Your task to perform on an android device: Do I have any events this weekend? Image 0: 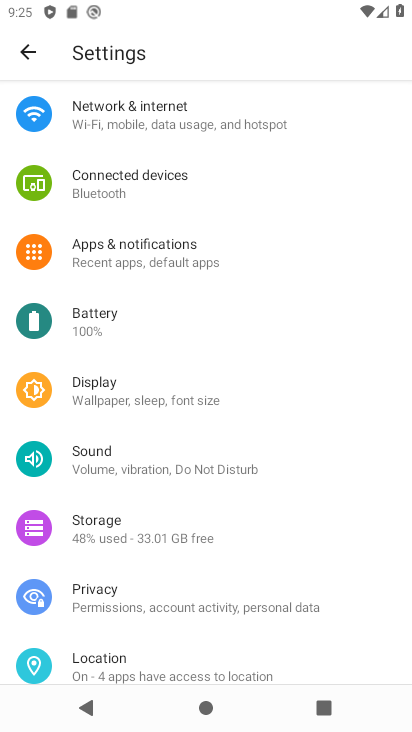
Step 0: press home button
Your task to perform on an android device: Do I have any events this weekend? Image 1: 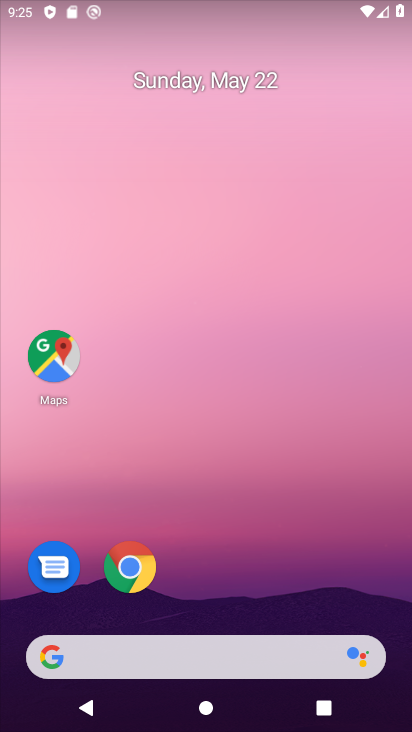
Step 1: drag from (269, 573) to (266, 145)
Your task to perform on an android device: Do I have any events this weekend? Image 2: 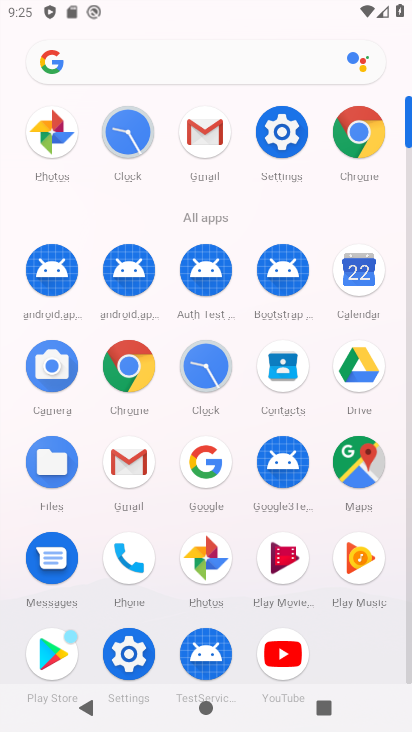
Step 2: click (352, 262)
Your task to perform on an android device: Do I have any events this weekend? Image 3: 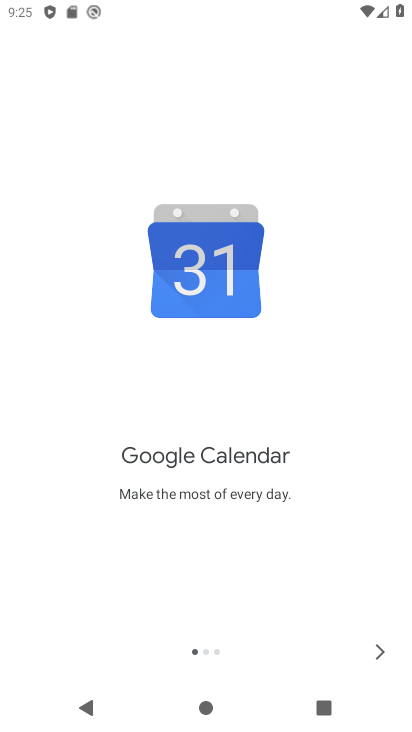
Step 3: click (359, 653)
Your task to perform on an android device: Do I have any events this weekend? Image 4: 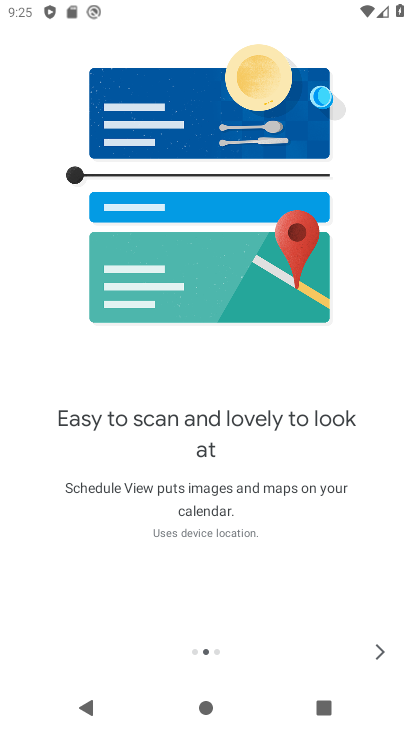
Step 4: click (364, 644)
Your task to perform on an android device: Do I have any events this weekend? Image 5: 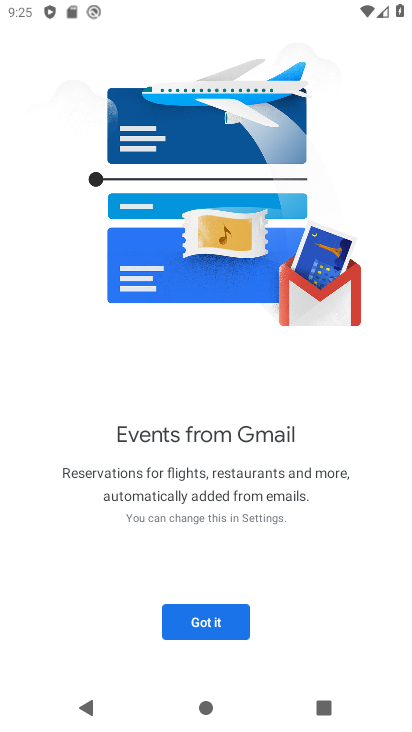
Step 5: click (219, 615)
Your task to perform on an android device: Do I have any events this weekend? Image 6: 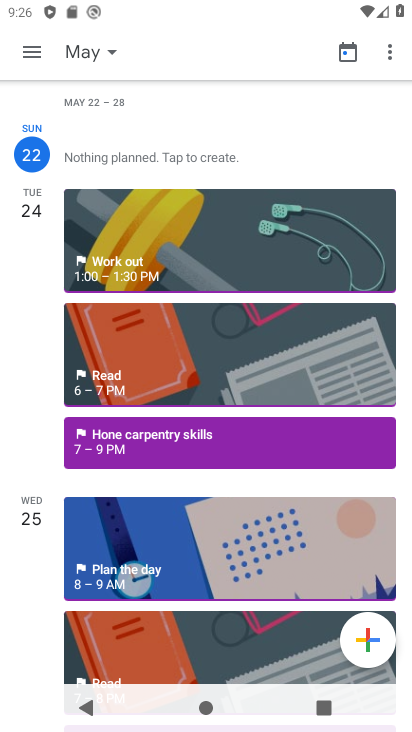
Step 6: click (38, 45)
Your task to perform on an android device: Do I have any events this weekend? Image 7: 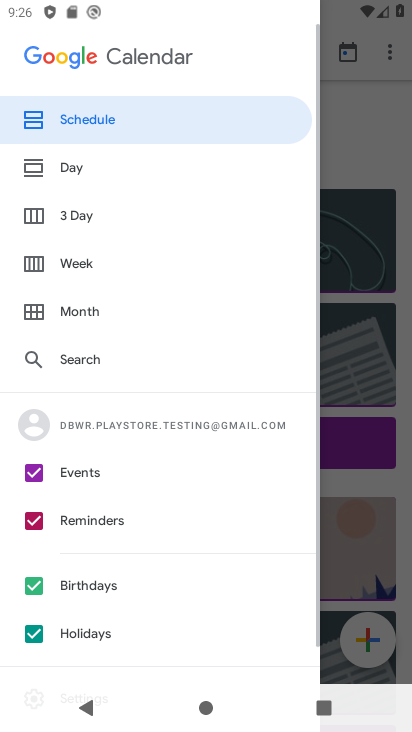
Step 7: click (104, 300)
Your task to perform on an android device: Do I have any events this weekend? Image 8: 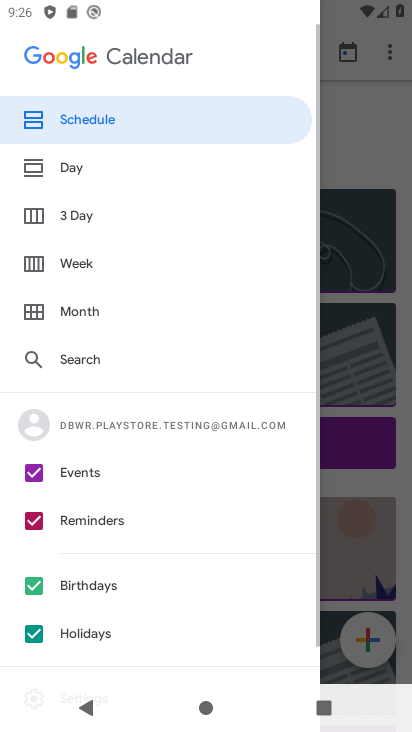
Step 8: click (146, 307)
Your task to perform on an android device: Do I have any events this weekend? Image 9: 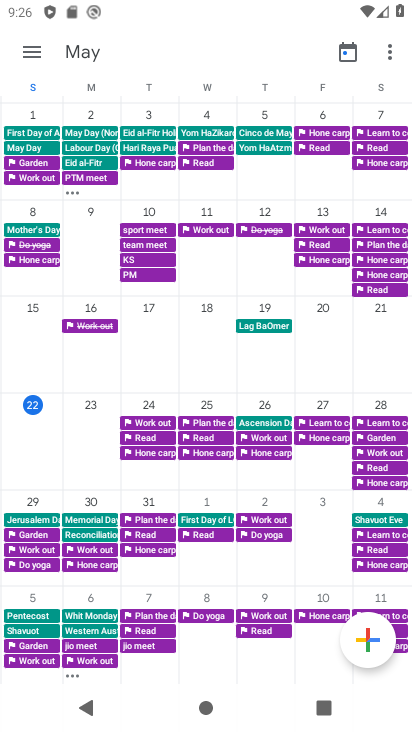
Step 9: click (32, 41)
Your task to perform on an android device: Do I have any events this weekend? Image 10: 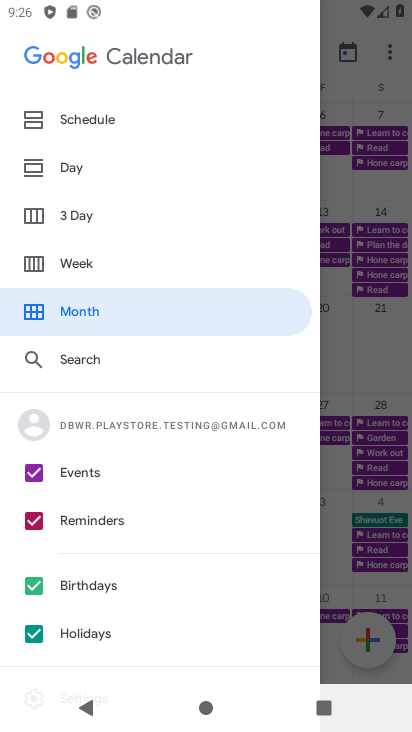
Step 10: task complete